Your task to perform on an android device: Open Reddit.com Image 0: 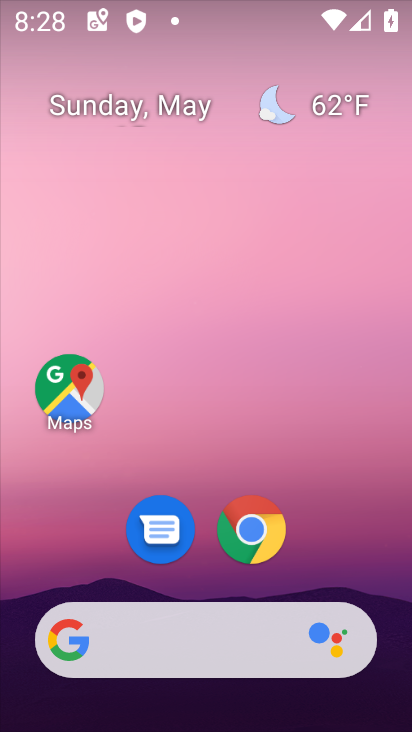
Step 0: drag from (378, 559) to (388, 67)
Your task to perform on an android device: Open Reddit.com Image 1: 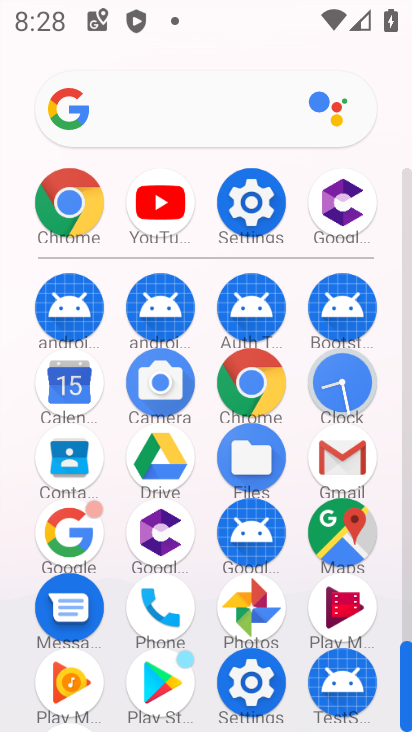
Step 1: click (243, 393)
Your task to perform on an android device: Open Reddit.com Image 2: 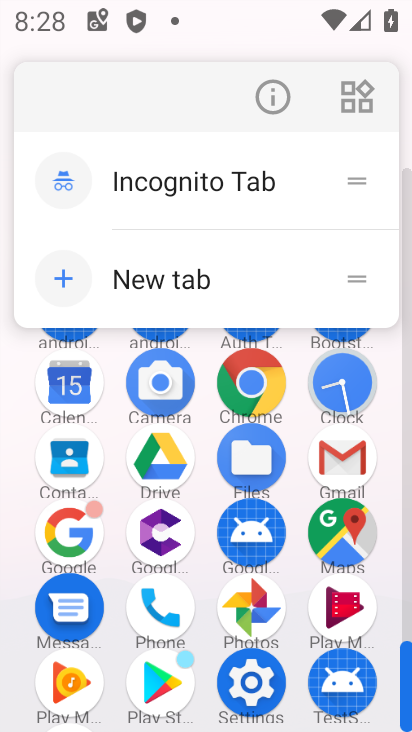
Step 2: click (250, 384)
Your task to perform on an android device: Open Reddit.com Image 3: 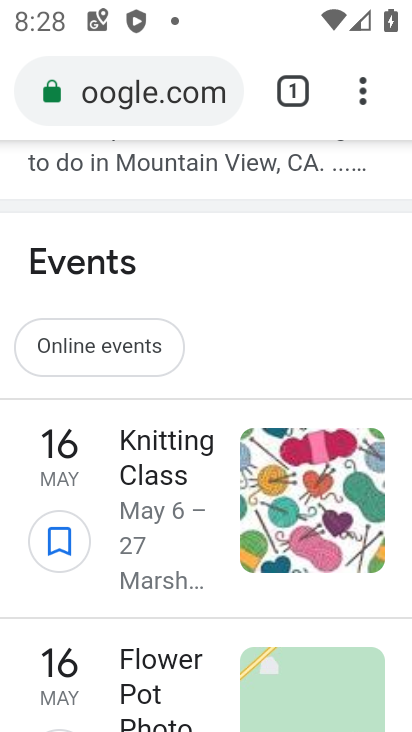
Step 3: click (191, 92)
Your task to perform on an android device: Open Reddit.com Image 4: 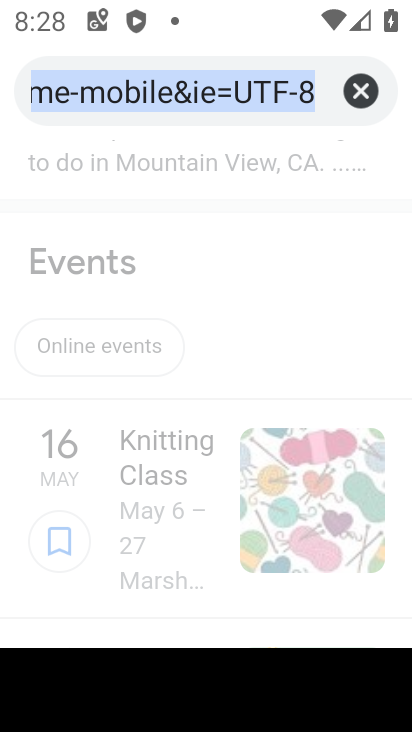
Step 4: click (355, 91)
Your task to perform on an android device: Open Reddit.com Image 5: 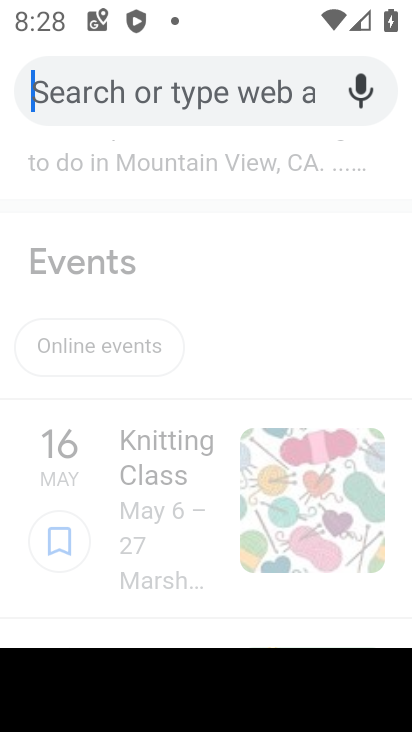
Step 5: click (187, 87)
Your task to perform on an android device: Open Reddit.com Image 6: 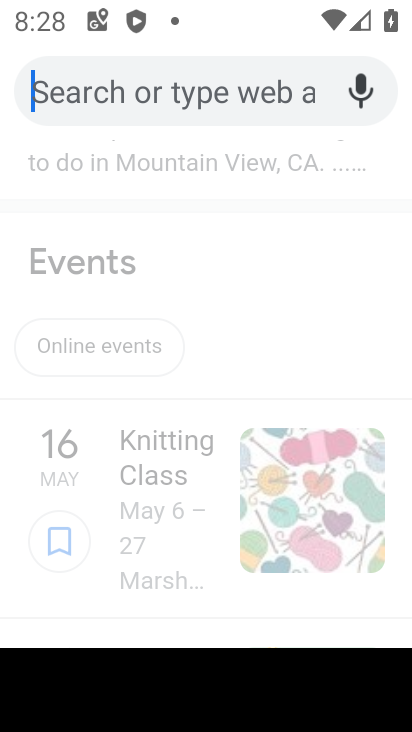
Step 6: type "reddit.com"
Your task to perform on an android device: Open Reddit.com Image 7: 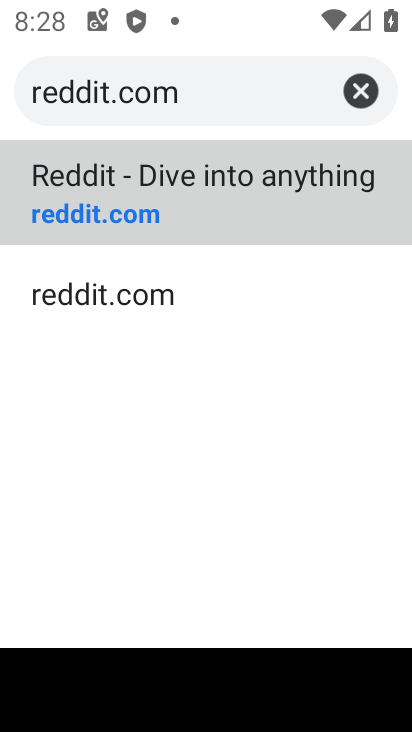
Step 7: click (170, 214)
Your task to perform on an android device: Open Reddit.com Image 8: 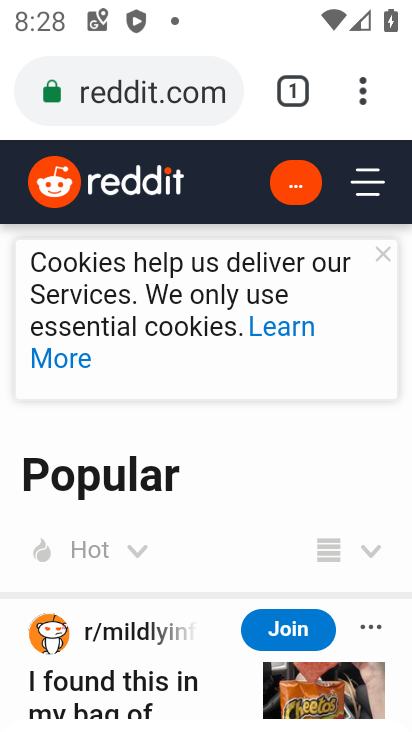
Step 8: task complete